Your task to perform on an android device: all mails in gmail Image 0: 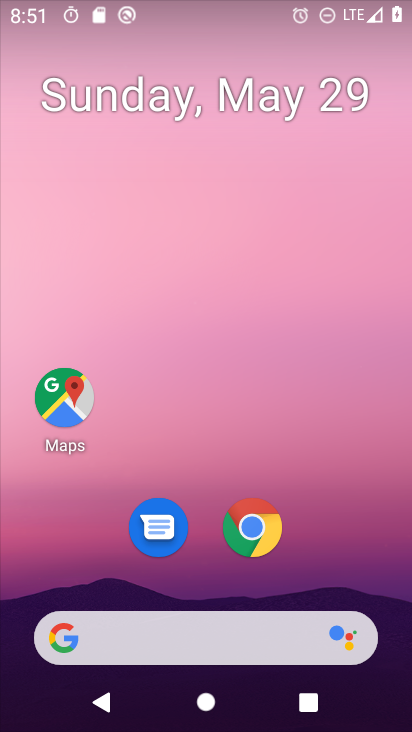
Step 0: drag from (393, 638) to (286, 51)
Your task to perform on an android device: all mails in gmail Image 1: 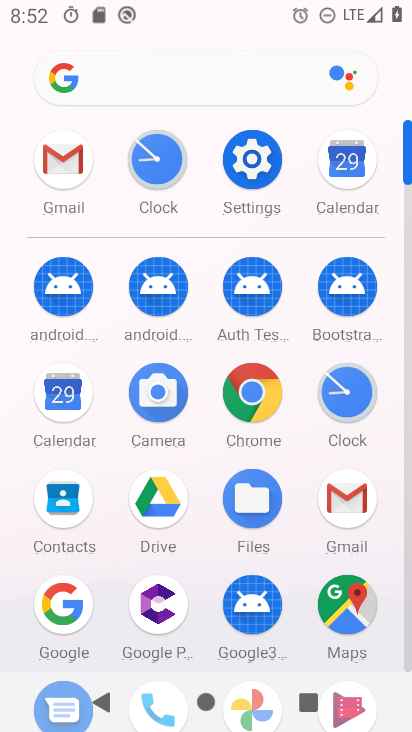
Step 1: click (336, 478)
Your task to perform on an android device: all mails in gmail Image 2: 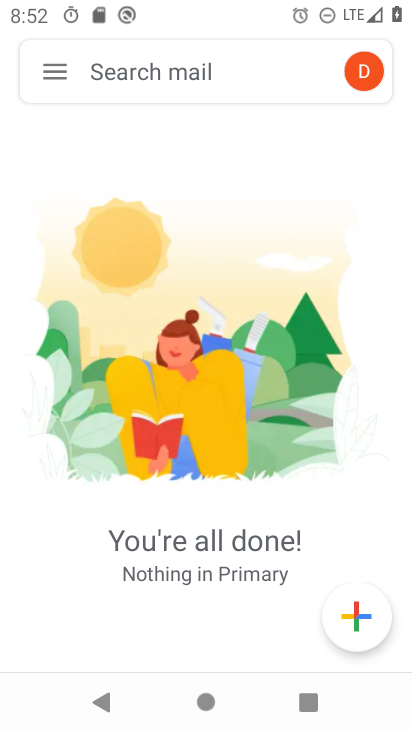
Step 2: click (73, 59)
Your task to perform on an android device: all mails in gmail Image 3: 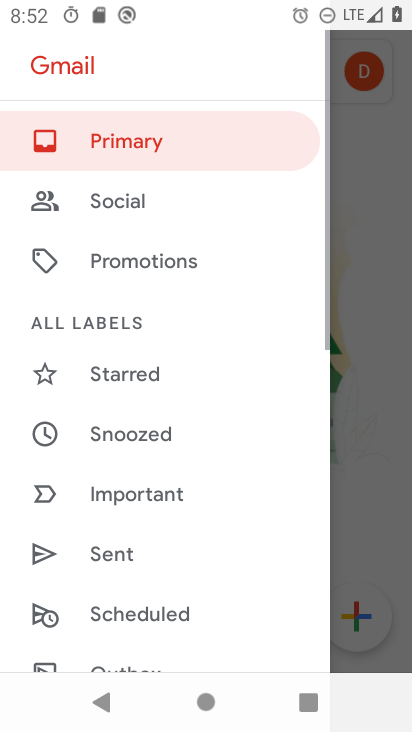
Step 3: drag from (159, 592) to (124, 65)
Your task to perform on an android device: all mails in gmail Image 4: 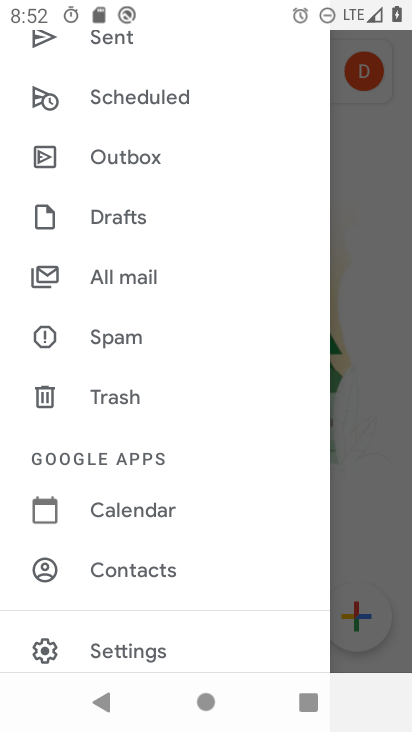
Step 4: click (144, 284)
Your task to perform on an android device: all mails in gmail Image 5: 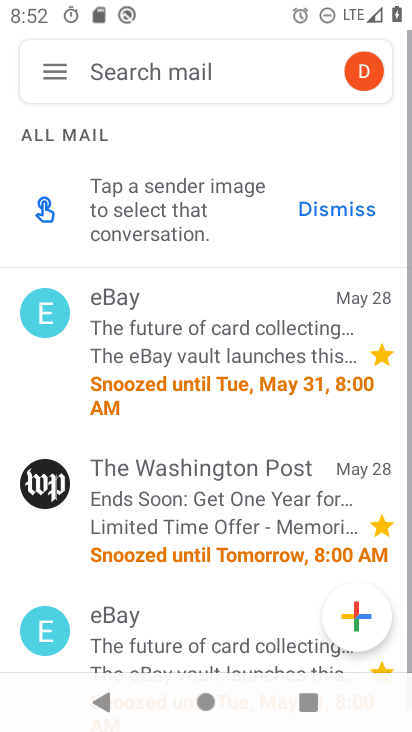
Step 5: task complete